Your task to perform on an android device: star an email in the gmail app Image 0: 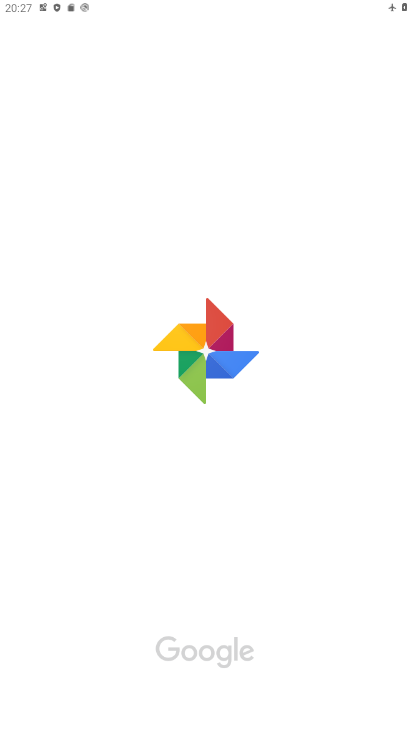
Step 0: drag from (236, 381) to (210, 169)
Your task to perform on an android device: star an email in the gmail app Image 1: 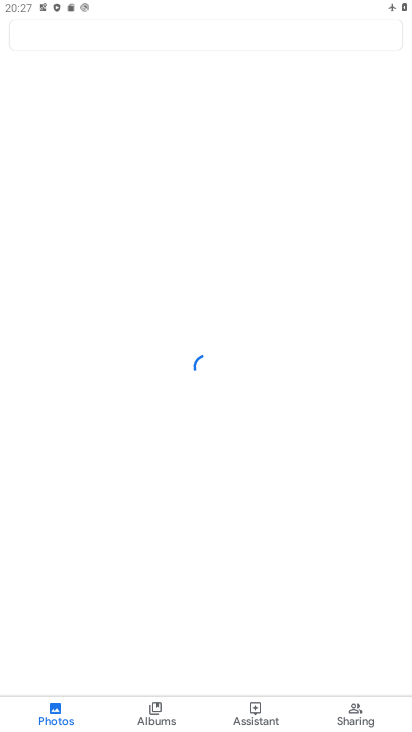
Step 1: press back button
Your task to perform on an android device: star an email in the gmail app Image 2: 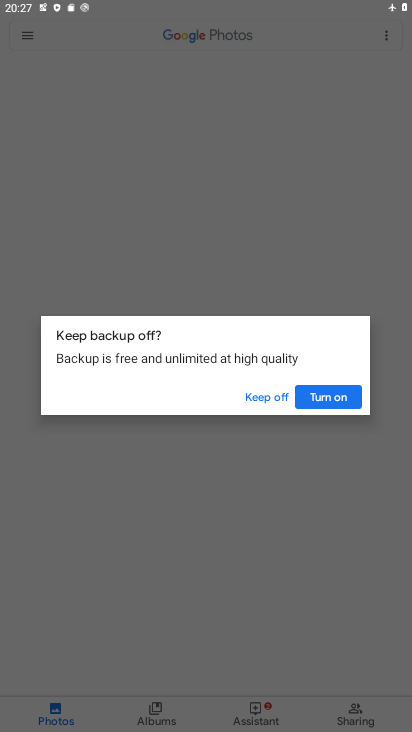
Step 2: click (338, 392)
Your task to perform on an android device: star an email in the gmail app Image 3: 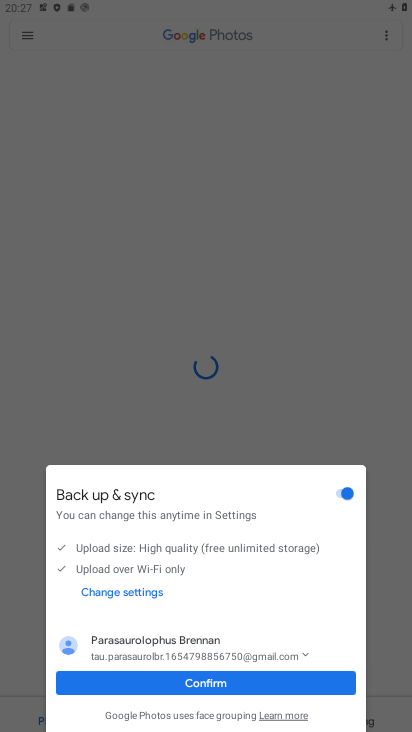
Step 3: press home button
Your task to perform on an android device: star an email in the gmail app Image 4: 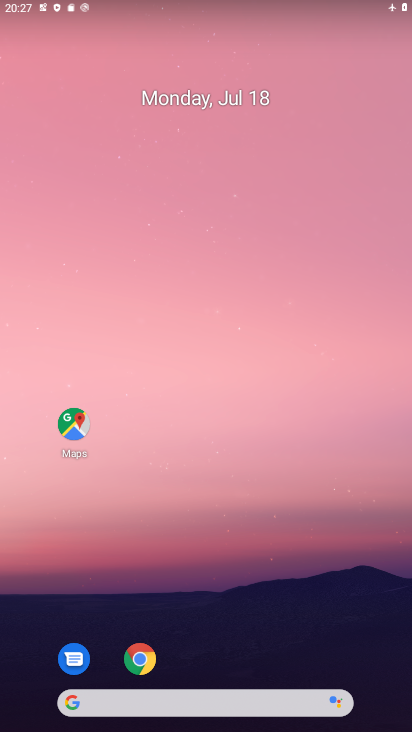
Step 4: drag from (248, 625) to (111, 138)
Your task to perform on an android device: star an email in the gmail app Image 5: 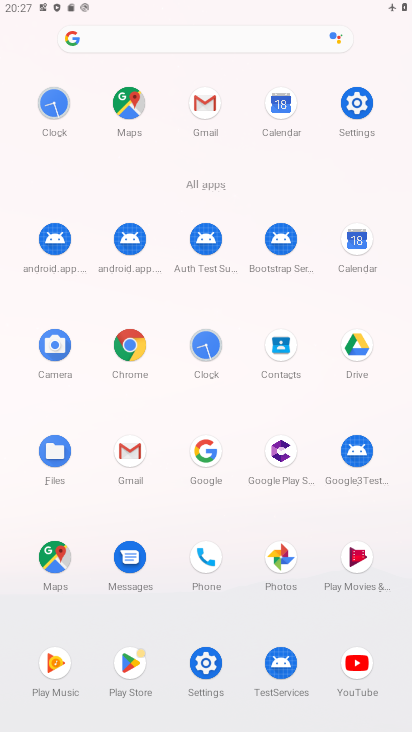
Step 5: click (125, 454)
Your task to perform on an android device: star an email in the gmail app Image 6: 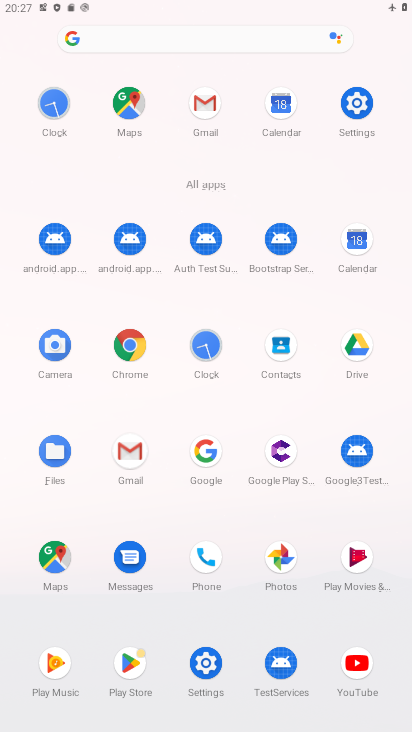
Step 6: click (125, 454)
Your task to perform on an android device: star an email in the gmail app Image 7: 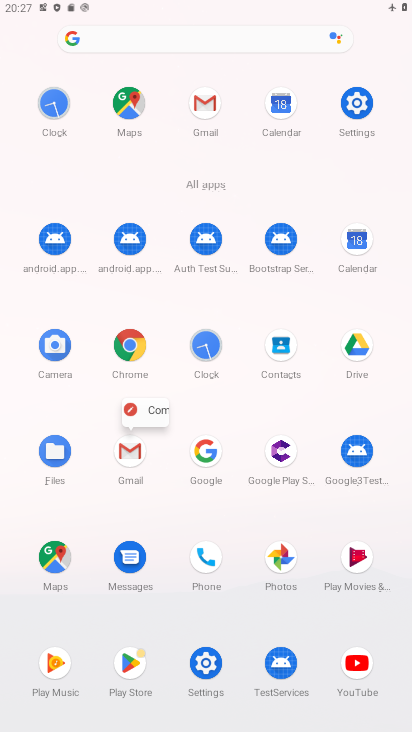
Step 7: click (125, 454)
Your task to perform on an android device: star an email in the gmail app Image 8: 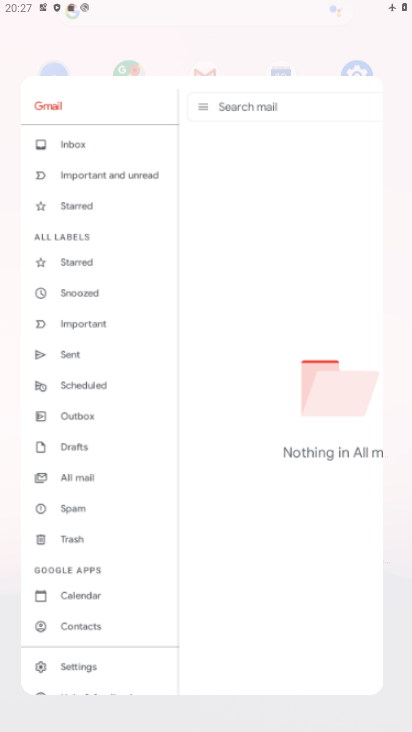
Step 8: click (125, 454)
Your task to perform on an android device: star an email in the gmail app Image 9: 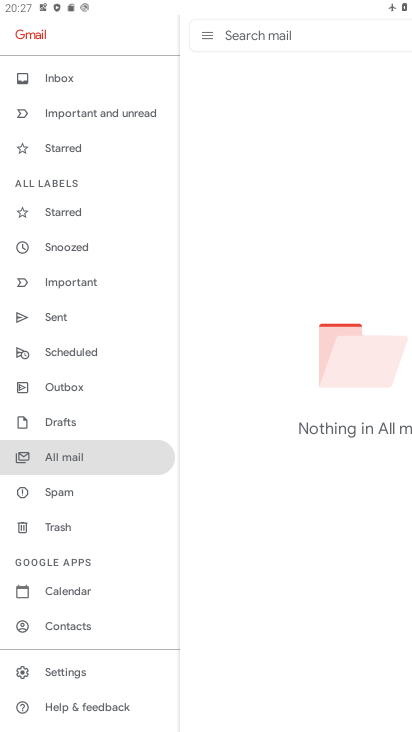
Step 9: click (126, 452)
Your task to perform on an android device: star an email in the gmail app Image 10: 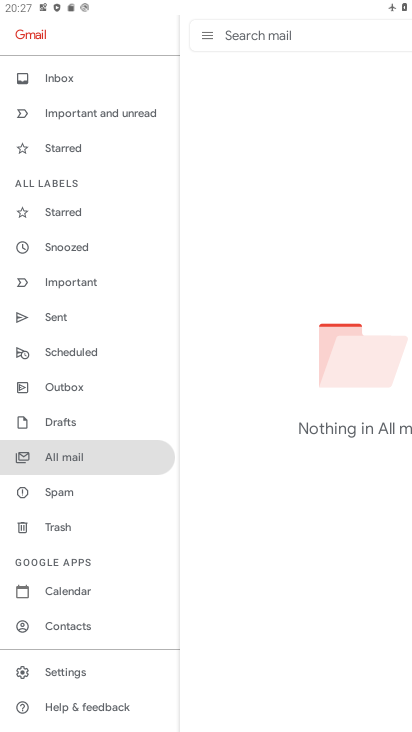
Step 10: click (74, 453)
Your task to perform on an android device: star an email in the gmail app Image 11: 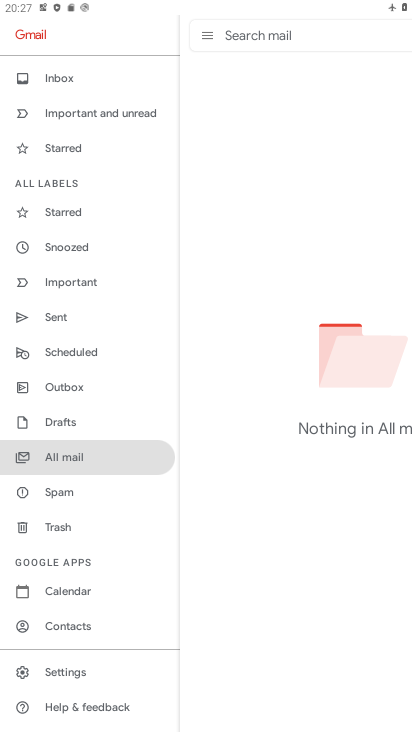
Step 11: click (74, 453)
Your task to perform on an android device: star an email in the gmail app Image 12: 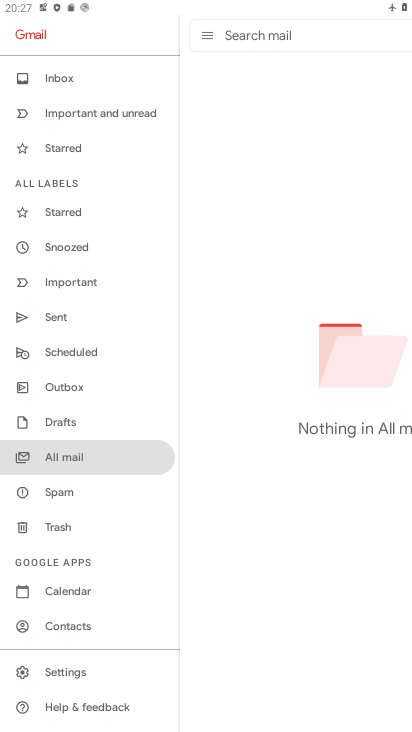
Step 12: task complete